Your task to perform on an android device: Open Google Chrome and open the bookmarks view Image 0: 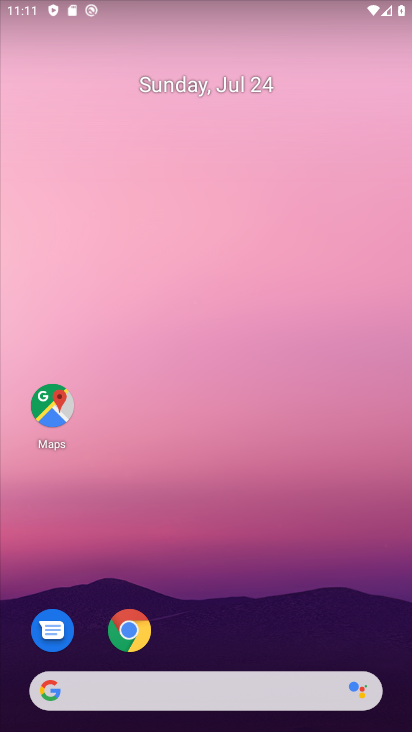
Step 0: click (136, 629)
Your task to perform on an android device: Open Google Chrome and open the bookmarks view Image 1: 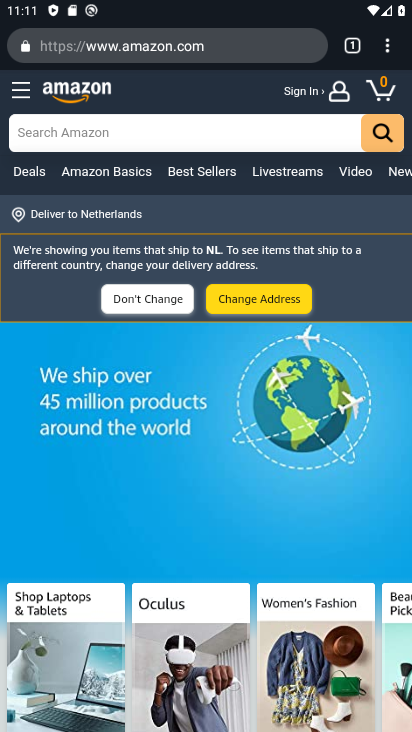
Step 1: click (389, 44)
Your task to perform on an android device: Open Google Chrome and open the bookmarks view Image 2: 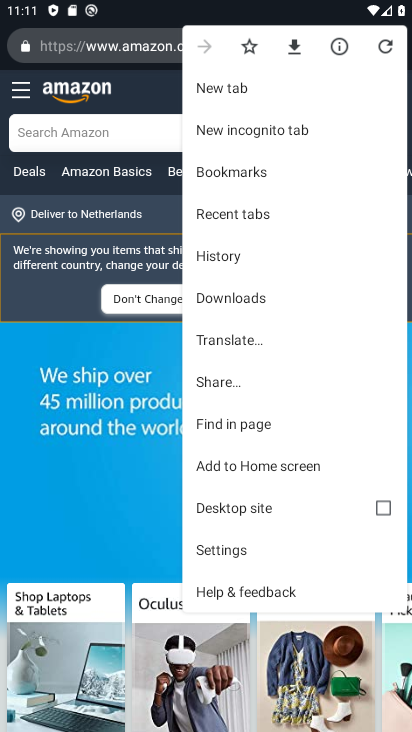
Step 2: click (248, 174)
Your task to perform on an android device: Open Google Chrome and open the bookmarks view Image 3: 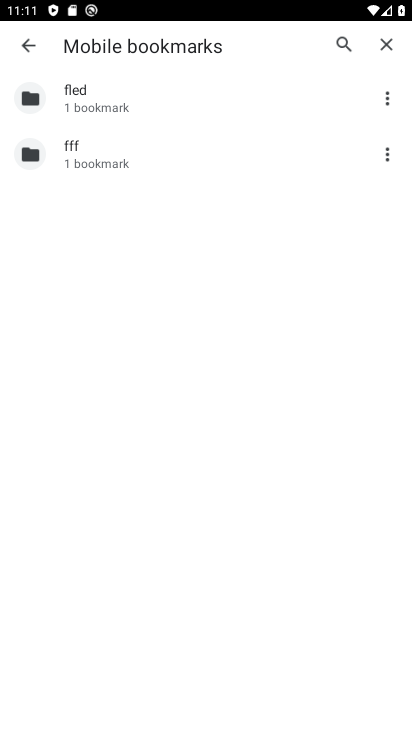
Step 3: task complete